Your task to perform on an android device: set an alarm Image 0: 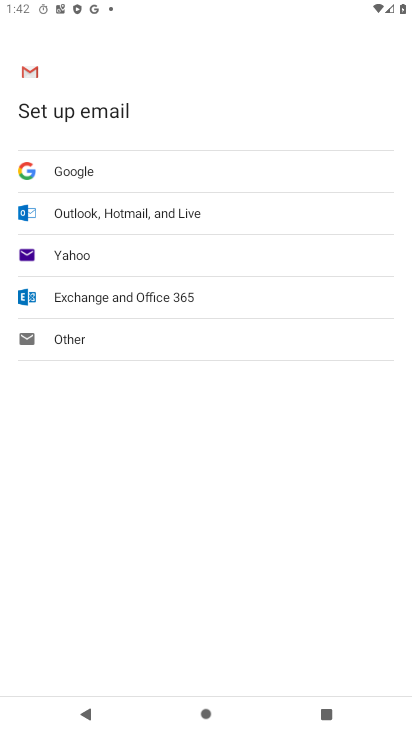
Step 0: drag from (202, 608) to (276, 573)
Your task to perform on an android device: set an alarm Image 1: 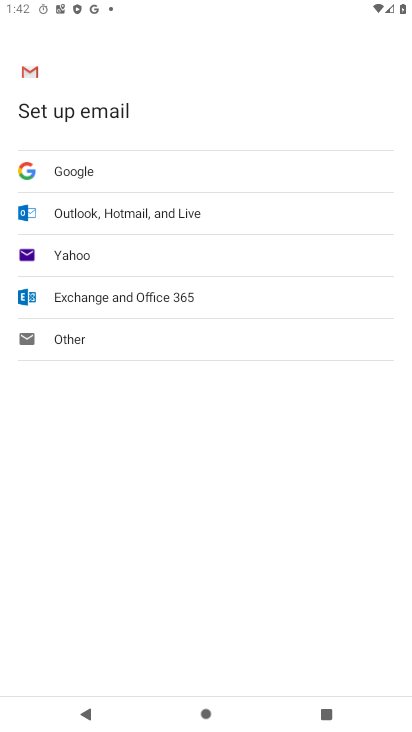
Step 1: press home button
Your task to perform on an android device: set an alarm Image 2: 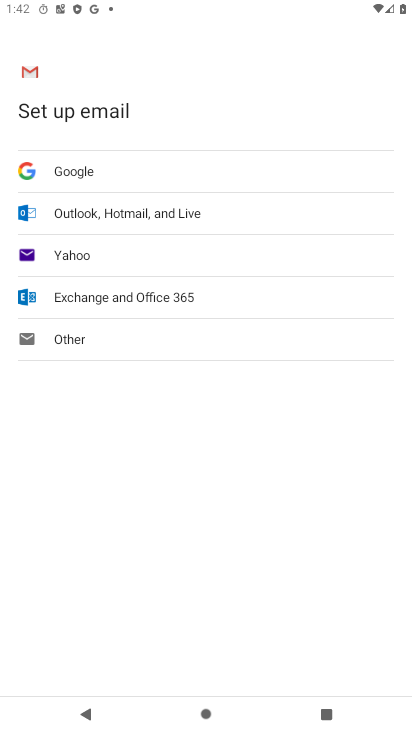
Step 2: drag from (276, 573) to (241, 518)
Your task to perform on an android device: set an alarm Image 3: 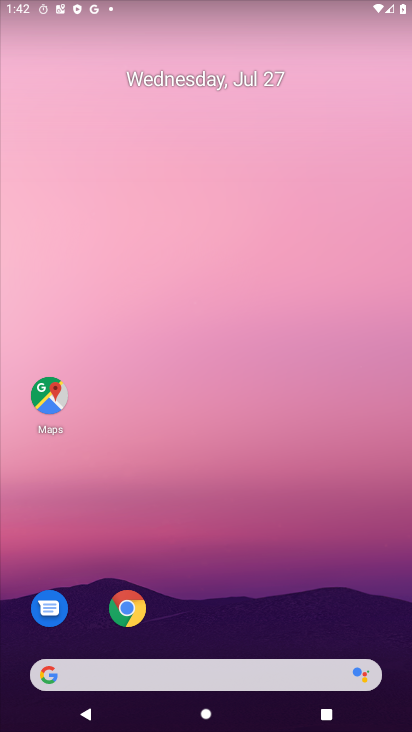
Step 3: drag from (216, 550) to (204, 28)
Your task to perform on an android device: set an alarm Image 4: 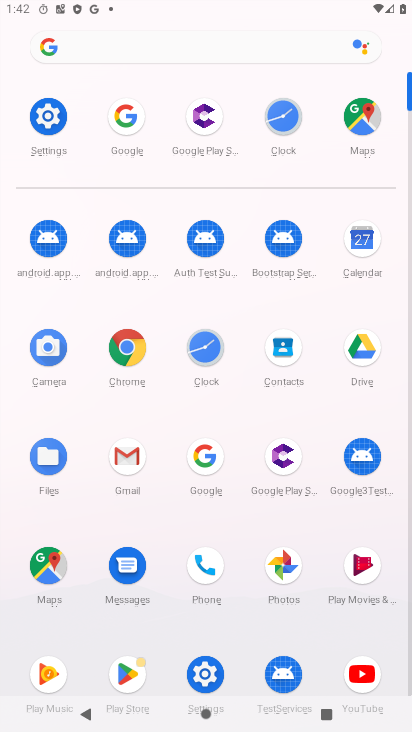
Step 4: click (207, 403)
Your task to perform on an android device: set an alarm Image 5: 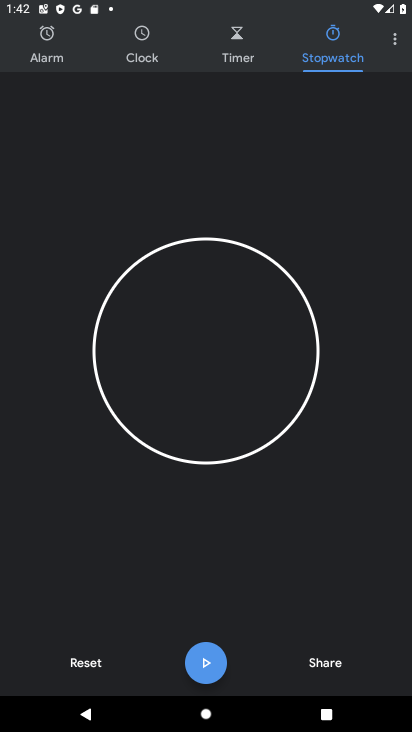
Step 5: click (39, 53)
Your task to perform on an android device: set an alarm Image 6: 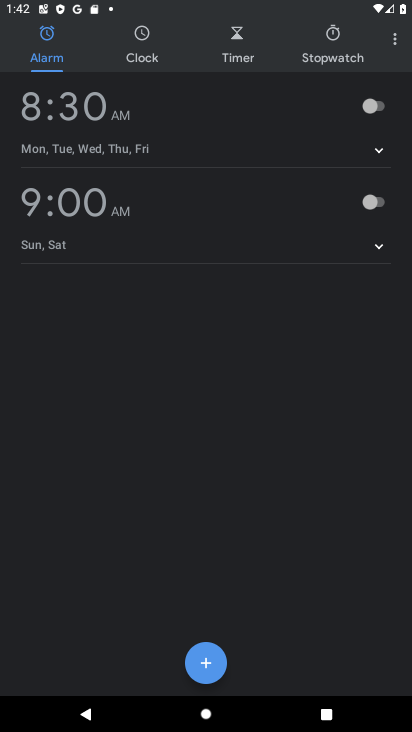
Step 6: click (376, 106)
Your task to perform on an android device: set an alarm Image 7: 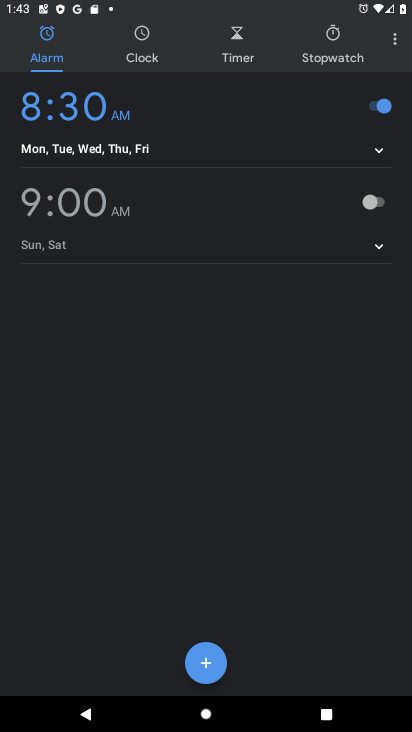
Step 7: task complete